Your task to perform on an android device: Open Reddit.com Image 0: 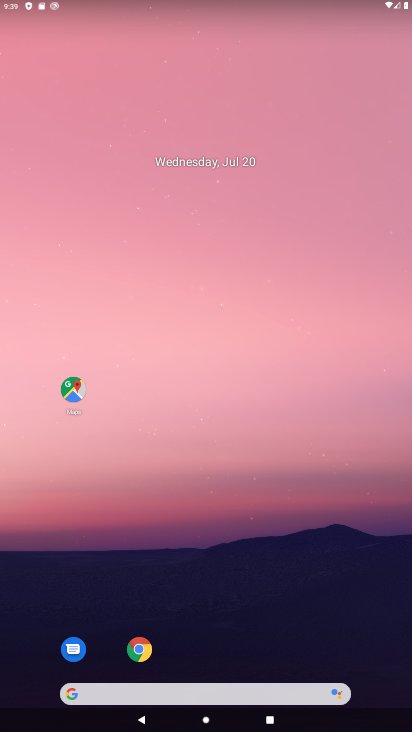
Step 0: click (130, 657)
Your task to perform on an android device: Open Reddit.com Image 1: 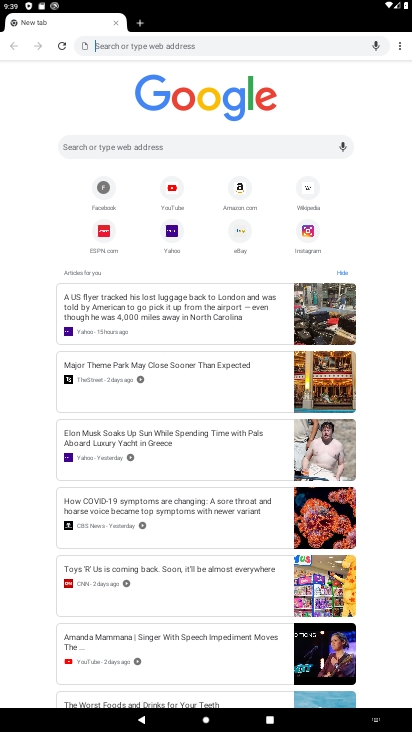
Step 1: click (396, 43)
Your task to perform on an android device: Open Reddit.com Image 2: 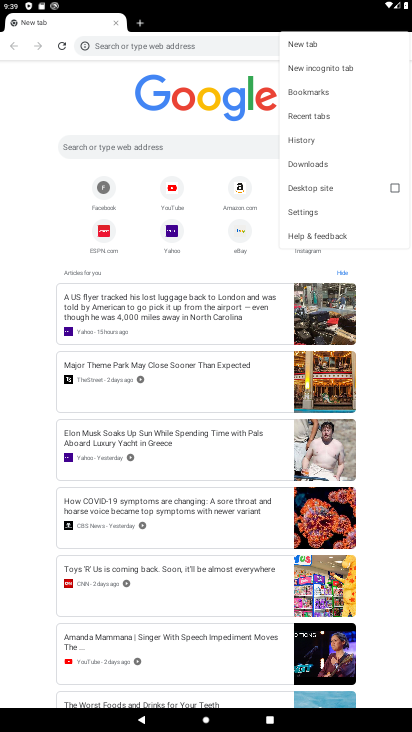
Step 2: click (172, 47)
Your task to perform on an android device: Open Reddit.com Image 3: 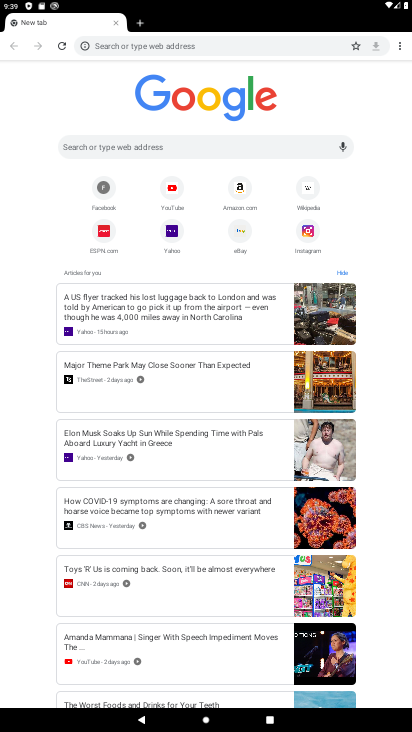
Step 3: click (226, 45)
Your task to perform on an android device: Open Reddit.com Image 4: 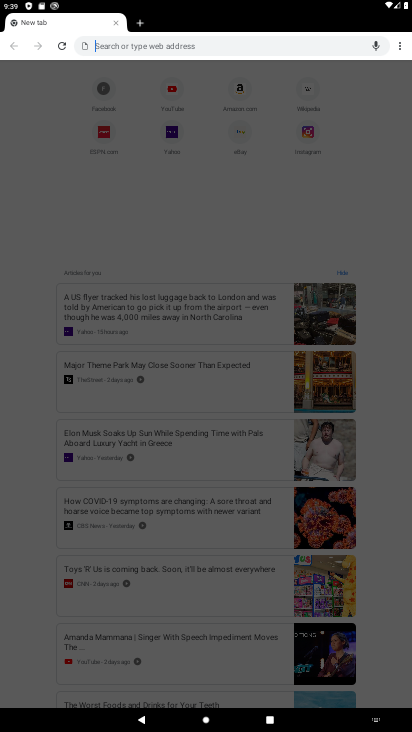
Step 4: type "reddit.com"
Your task to perform on an android device: Open Reddit.com Image 5: 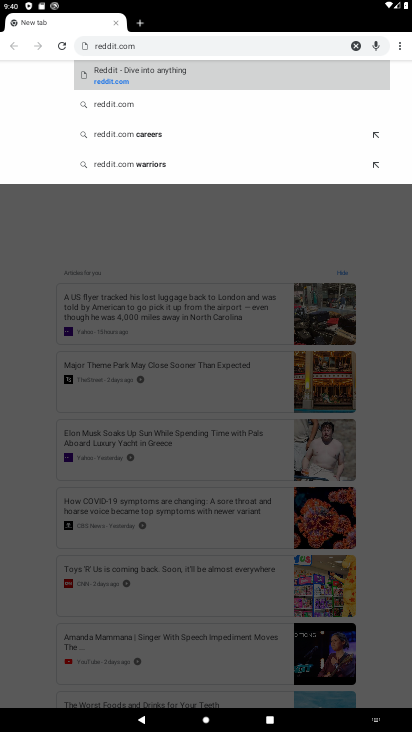
Step 5: click (201, 71)
Your task to perform on an android device: Open Reddit.com Image 6: 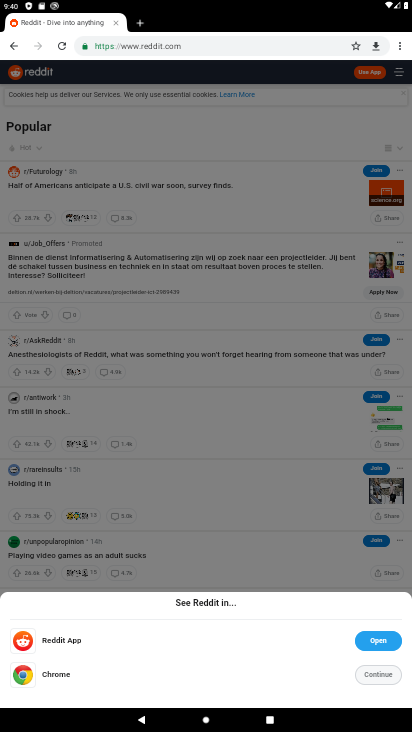
Step 6: click (373, 671)
Your task to perform on an android device: Open Reddit.com Image 7: 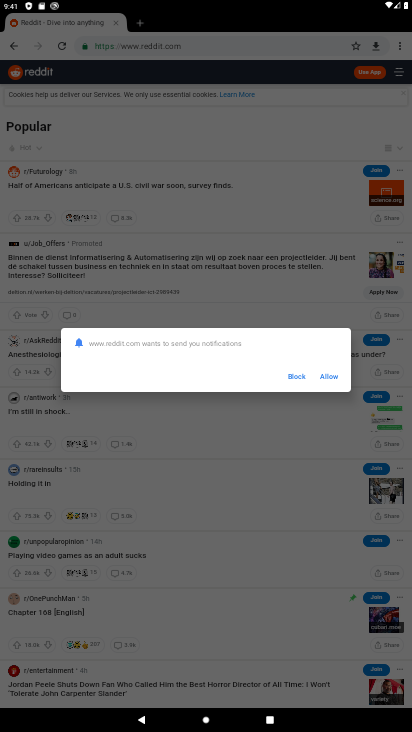
Step 7: task complete